Your task to perform on an android device: add a contact Image 0: 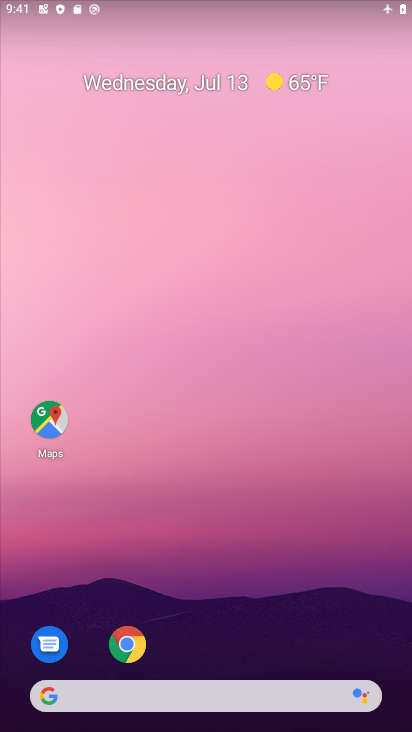
Step 0: drag from (284, 569) to (313, 86)
Your task to perform on an android device: add a contact Image 1: 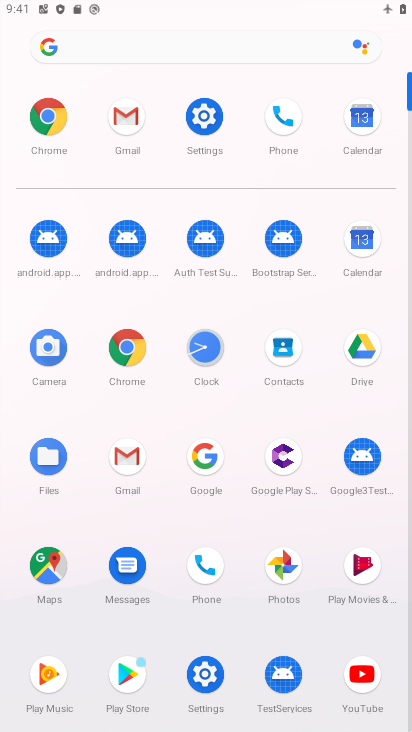
Step 1: click (291, 116)
Your task to perform on an android device: add a contact Image 2: 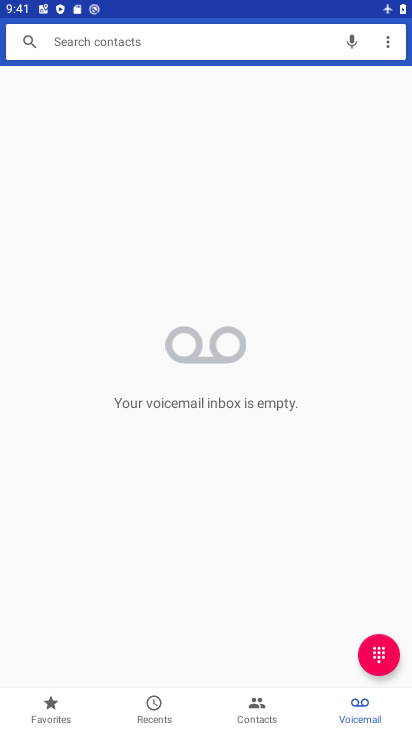
Step 2: click (259, 716)
Your task to perform on an android device: add a contact Image 3: 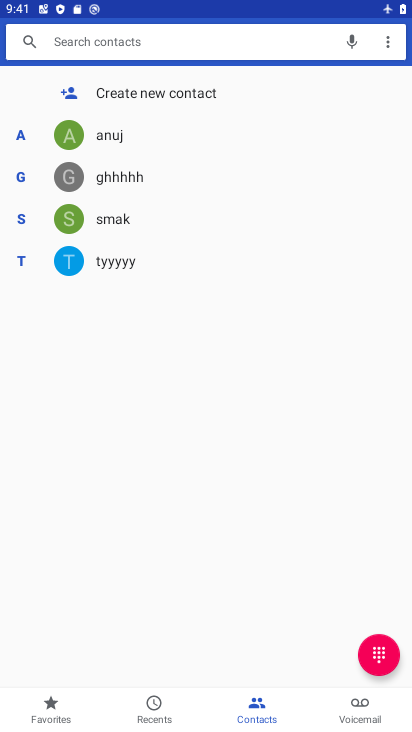
Step 3: click (150, 89)
Your task to perform on an android device: add a contact Image 4: 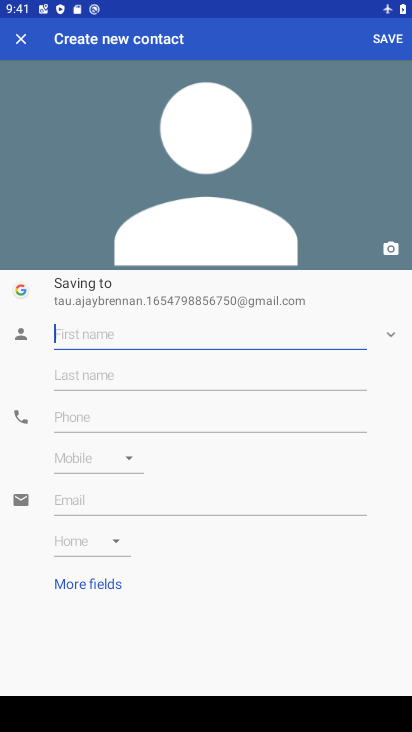
Step 4: type "gjjhg"
Your task to perform on an android device: add a contact Image 5: 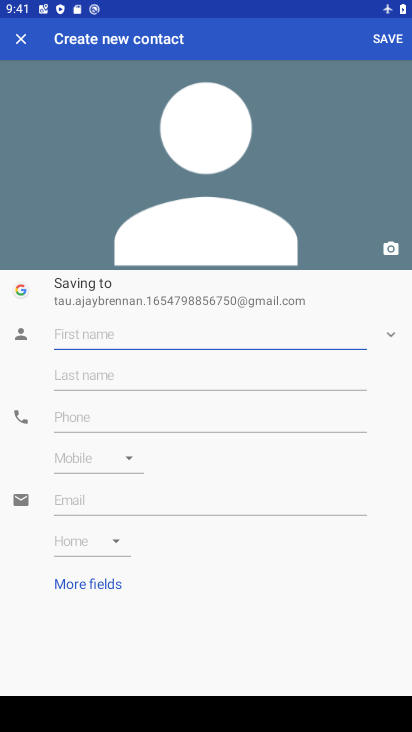
Step 5: click (104, 414)
Your task to perform on an android device: add a contact Image 6: 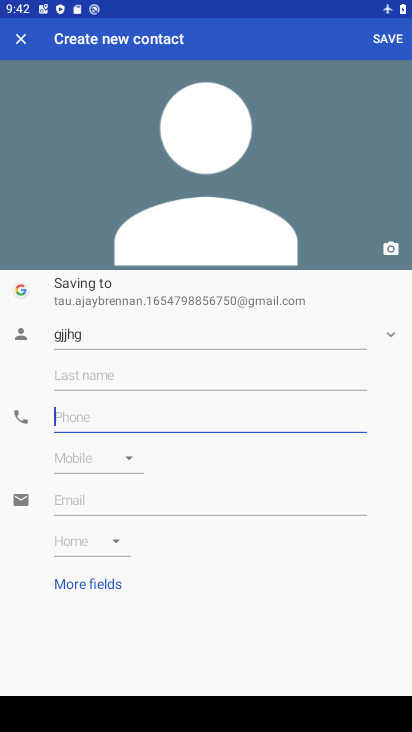
Step 6: type "677654567"
Your task to perform on an android device: add a contact Image 7: 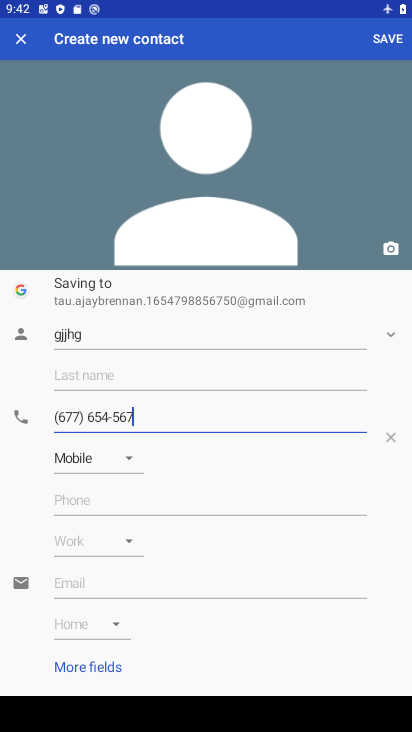
Step 7: click (388, 37)
Your task to perform on an android device: add a contact Image 8: 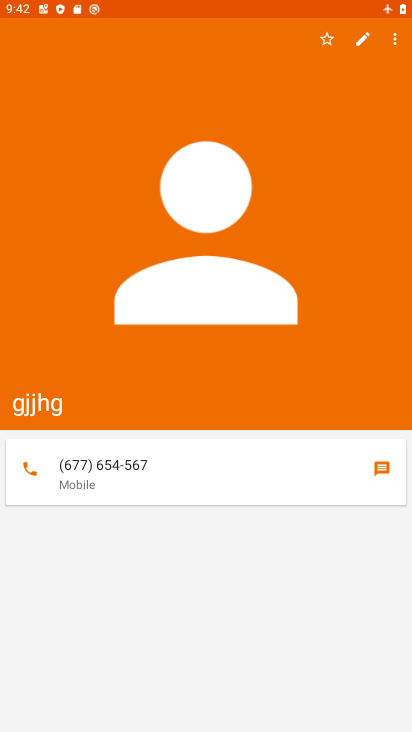
Step 8: task complete